Your task to perform on an android device: Is it going to rain tomorrow? Image 0: 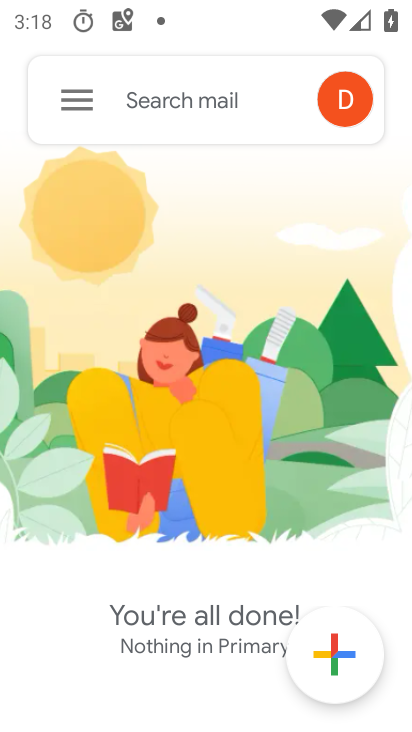
Step 0: press home button
Your task to perform on an android device: Is it going to rain tomorrow? Image 1: 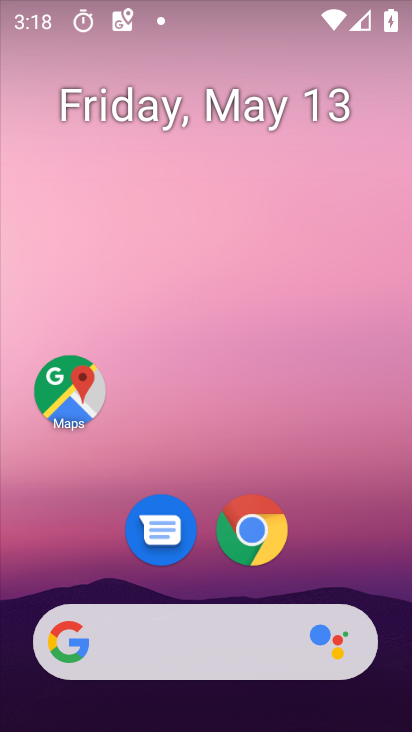
Step 1: drag from (328, 551) to (300, 73)
Your task to perform on an android device: Is it going to rain tomorrow? Image 2: 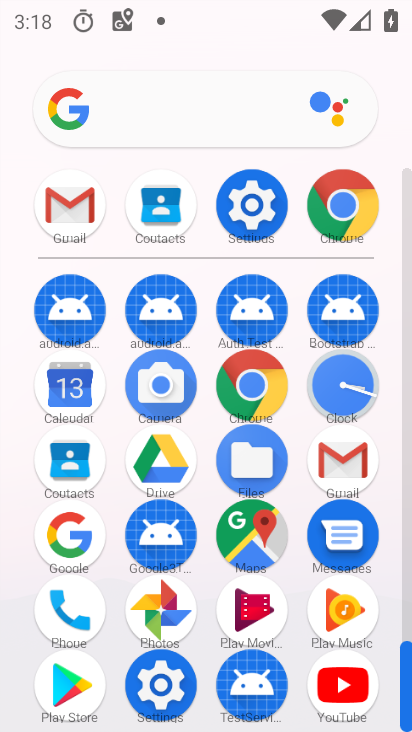
Step 2: click (258, 412)
Your task to perform on an android device: Is it going to rain tomorrow? Image 3: 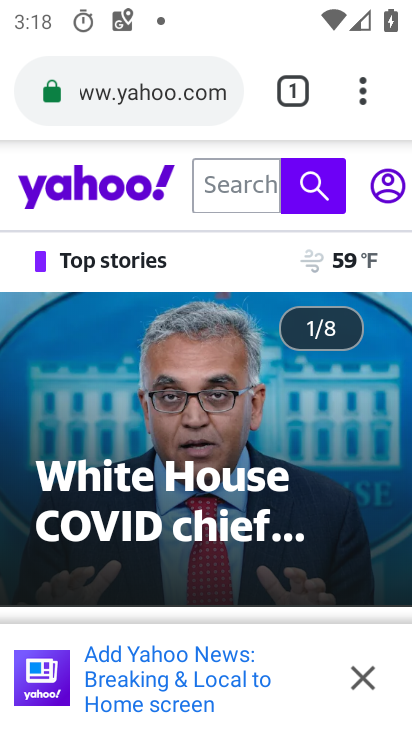
Step 3: click (190, 89)
Your task to perform on an android device: Is it going to rain tomorrow? Image 4: 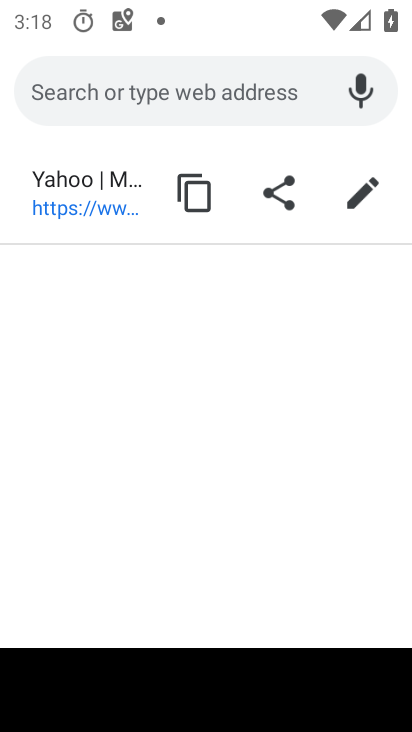
Step 4: type "weather"
Your task to perform on an android device: Is it going to rain tomorrow? Image 5: 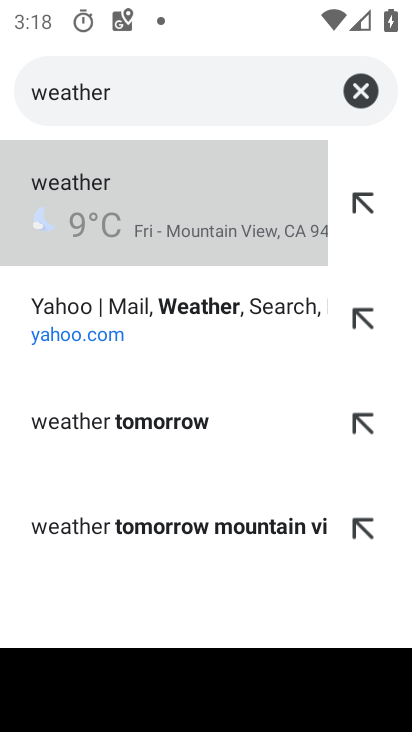
Step 5: click (193, 240)
Your task to perform on an android device: Is it going to rain tomorrow? Image 6: 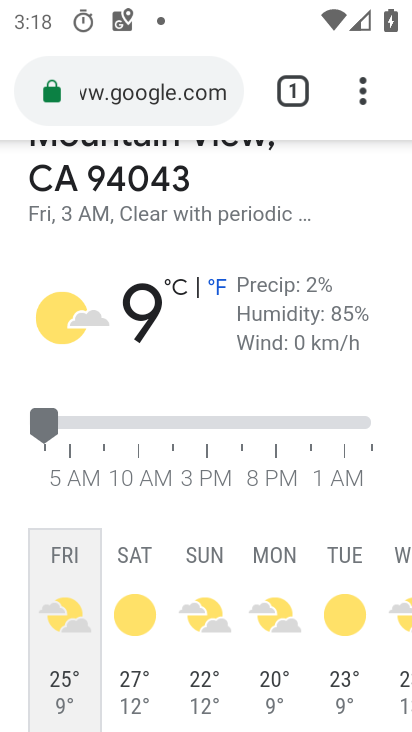
Step 6: task complete